Your task to perform on an android device: allow cookies in the chrome app Image 0: 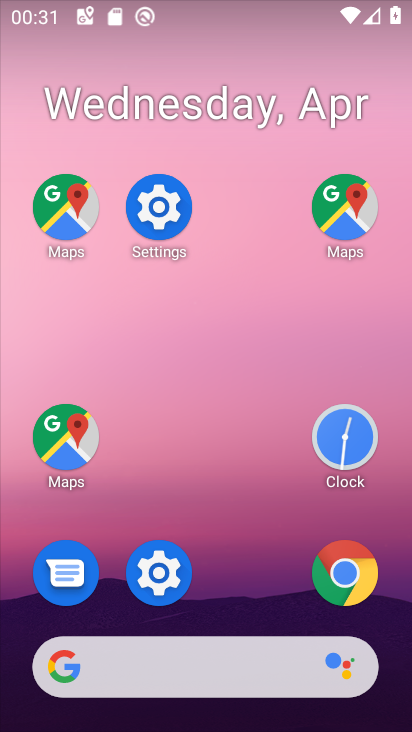
Step 0: drag from (300, 671) to (76, 172)
Your task to perform on an android device: allow cookies in the chrome app Image 1: 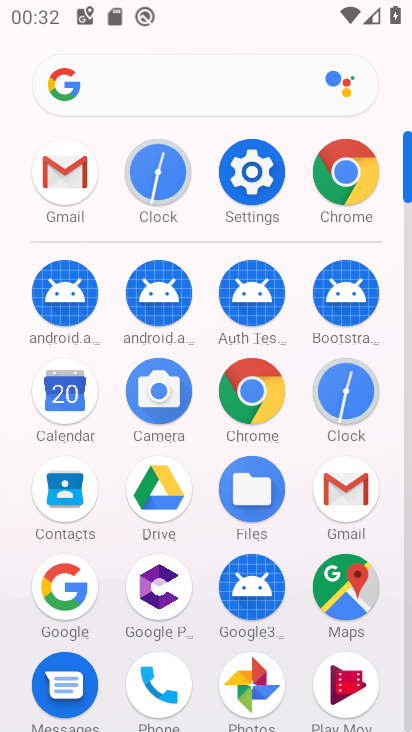
Step 1: click (333, 177)
Your task to perform on an android device: allow cookies in the chrome app Image 2: 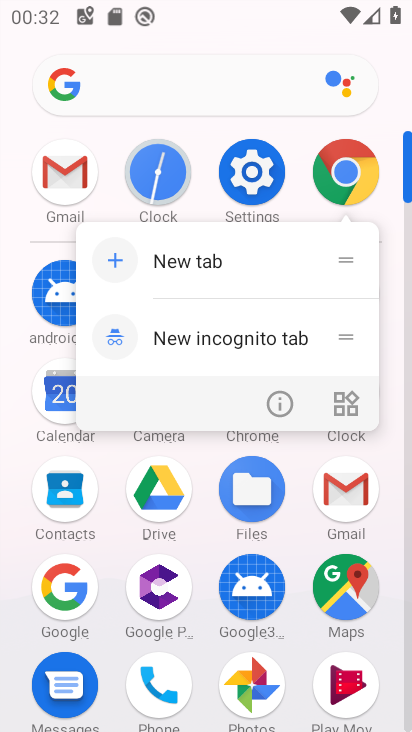
Step 2: click (333, 177)
Your task to perform on an android device: allow cookies in the chrome app Image 3: 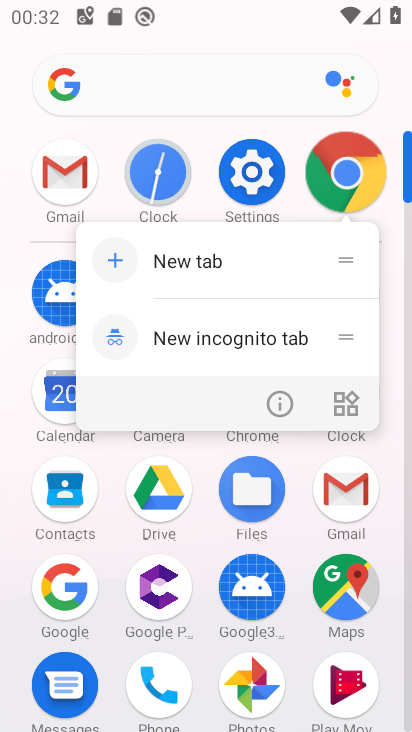
Step 3: click (334, 177)
Your task to perform on an android device: allow cookies in the chrome app Image 4: 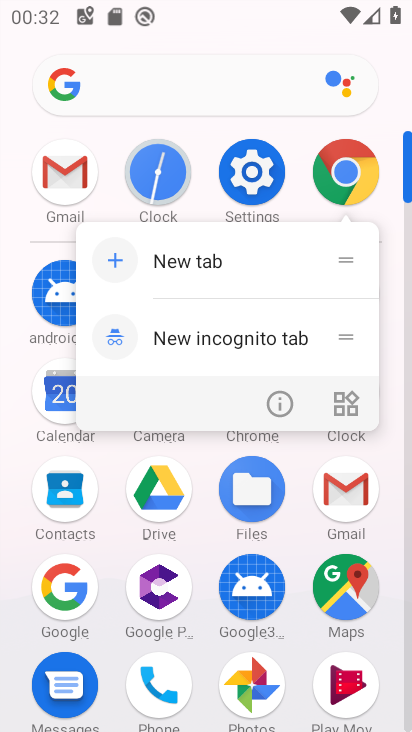
Step 4: click (349, 170)
Your task to perform on an android device: allow cookies in the chrome app Image 5: 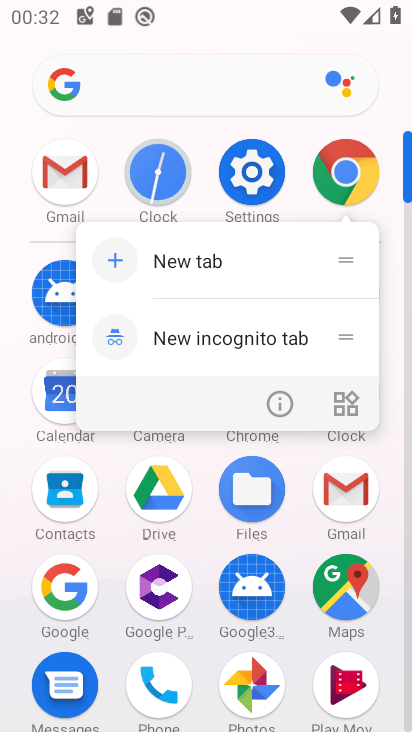
Step 5: click (245, 170)
Your task to perform on an android device: allow cookies in the chrome app Image 6: 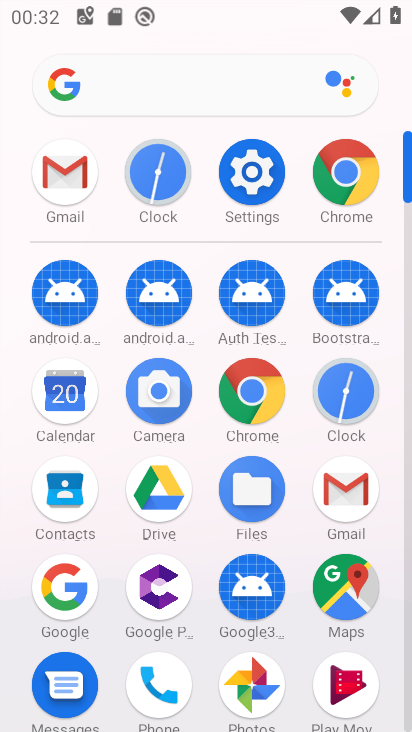
Step 6: click (351, 173)
Your task to perform on an android device: allow cookies in the chrome app Image 7: 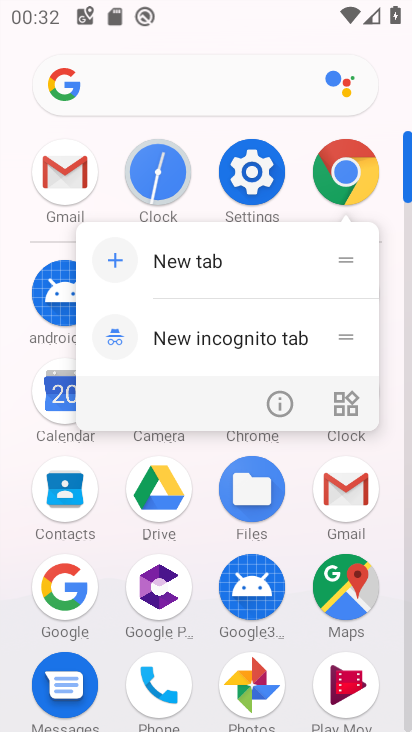
Step 7: click (327, 163)
Your task to perform on an android device: allow cookies in the chrome app Image 8: 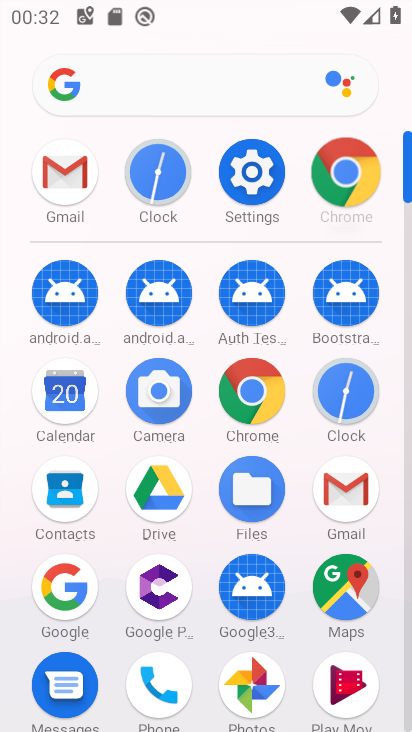
Step 8: click (339, 174)
Your task to perform on an android device: allow cookies in the chrome app Image 9: 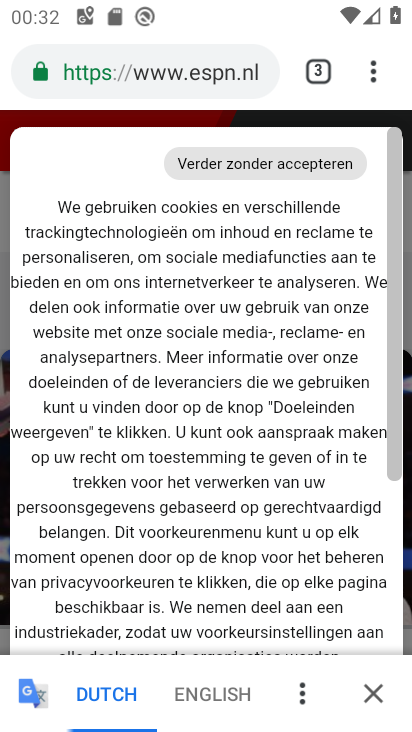
Step 9: drag from (374, 73) to (121, 572)
Your task to perform on an android device: allow cookies in the chrome app Image 10: 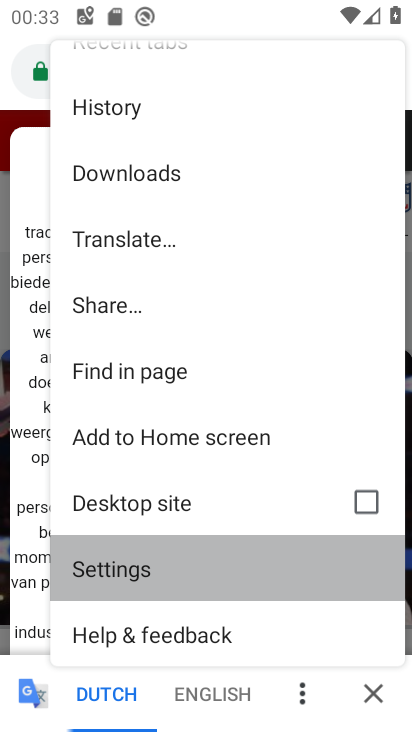
Step 10: click (115, 572)
Your task to perform on an android device: allow cookies in the chrome app Image 11: 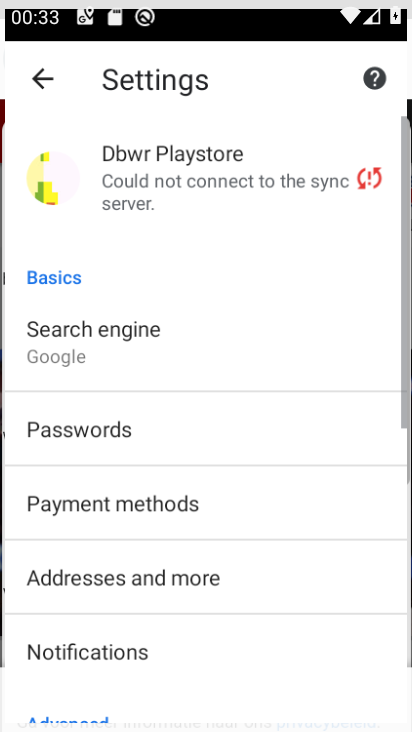
Step 11: click (116, 571)
Your task to perform on an android device: allow cookies in the chrome app Image 12: 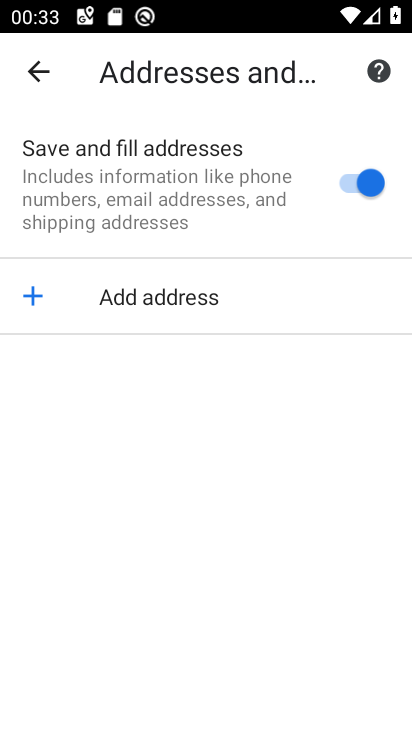
Step 12: click (37, 72)
Your task to perform on an android device: allow cookies in the chrome app Image 13: 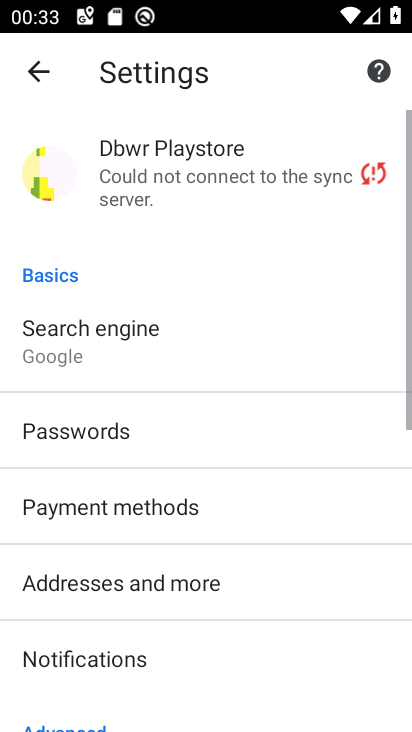
Step 13: drag from (174, 385) to (163, 263)
Your task to perform on an android device: allow cookies in the chrome app Image 14: 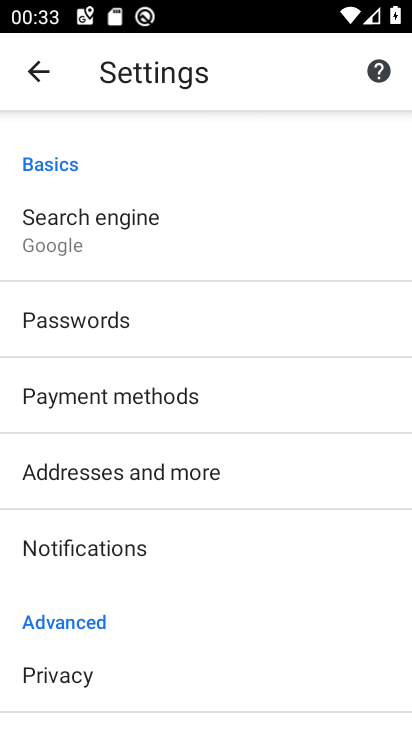
Step 14: drag from (104, 564) to (91, 276)
Your task to perform on an android device: allow cookies in the chrome app Image 15: 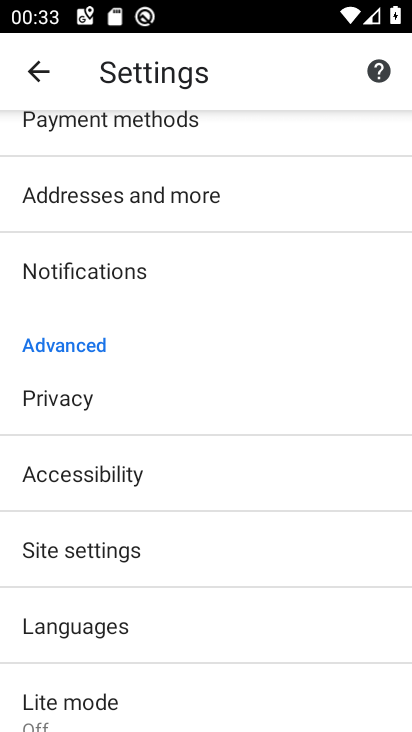
Step 15: click (71, 554)
Your task to perform on an android device: allow cookies in the chrome app Image 16: 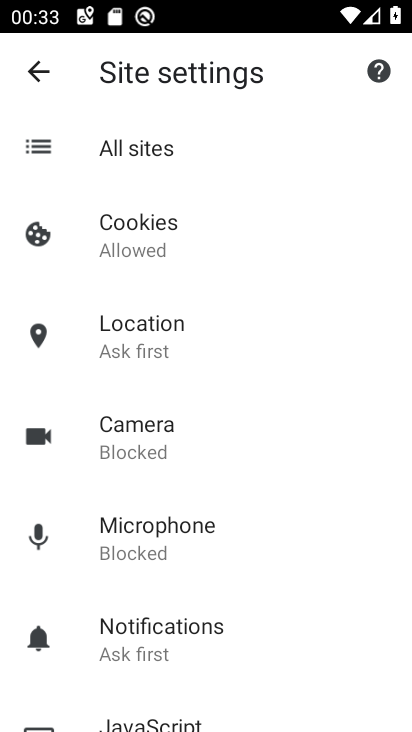
Step 16: click (133, 247)
Your task to perform on an android device: allow cookies in the chrome app Image 17: 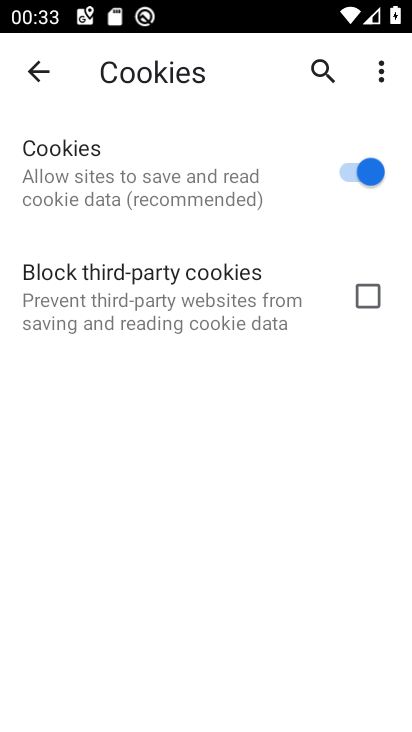
Step 17: task complete